Your task to perform on an android device: stop showing notifications on the lock screen Image 0: 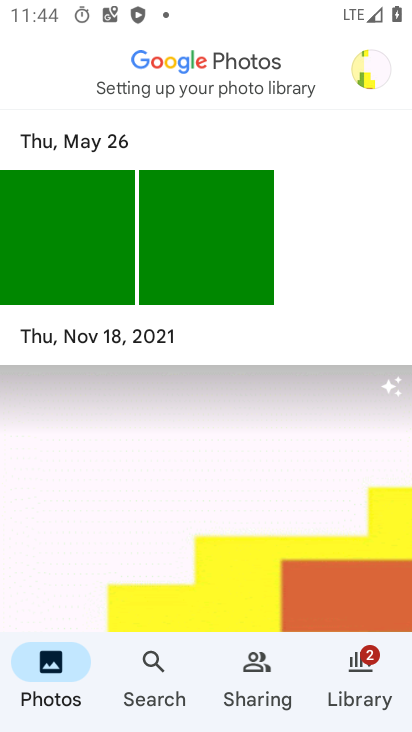
Step 0: press home button
Your task to perform on an android device: stop showing notifications on the lock screen Image 1: 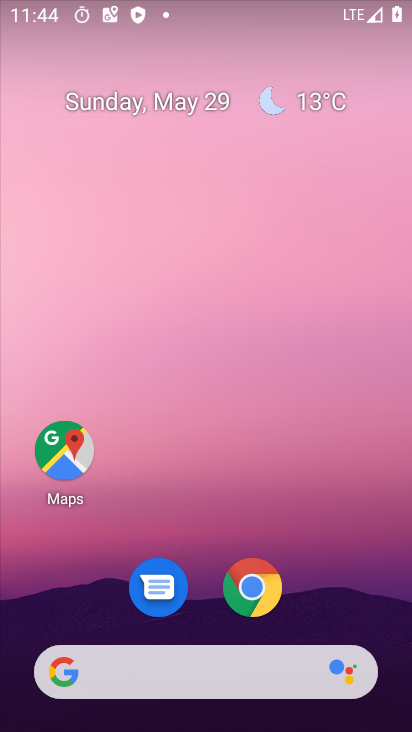
Step 1: drag from (338, 548) to (270, 94)
Your task to perform on an android device: stop showing notifications on the lock screen Image 2: 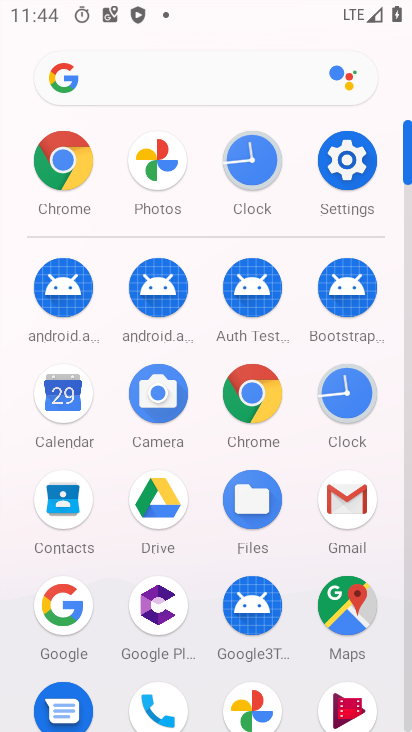
Step 2: click (368, 143)
Your task to perform on an android device: stop showing notifications on the lock screen Image 3: 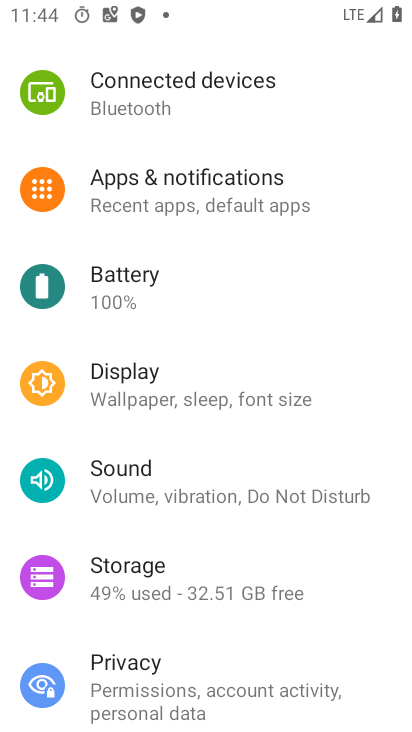
Step 3: click (258, 184)
Your task to perform on an android device: stop showing notifications on the lock screen Image 4: 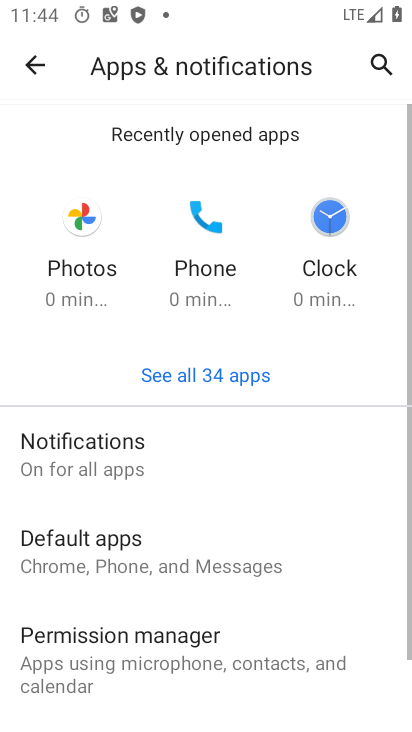
Step 4: click (111, 481)
Your task to perform on an android device: stop showing notifications on the lock screen Image 5: 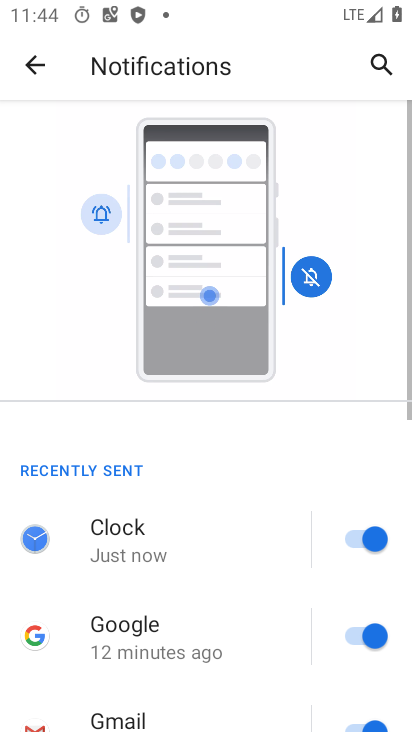
Step 5: drag from (218, 513) to (251, 6)
Your task to perform on an android device: stop showing notifications on the lock screen Image 6: 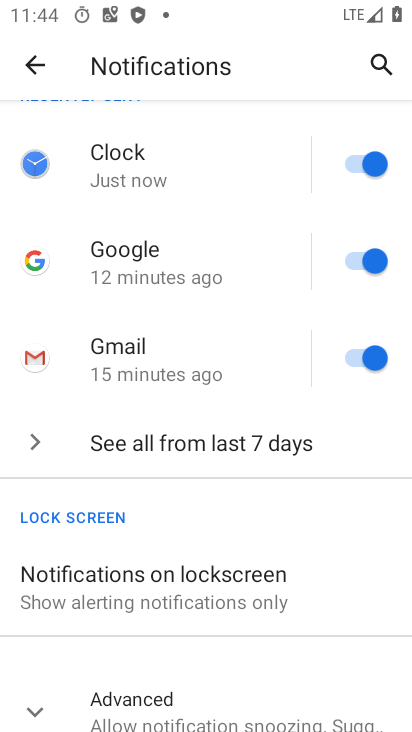
Step 6: click (208, 599)
Your task to perform on an android device: stop showing notifications on the lock screen Image 7: 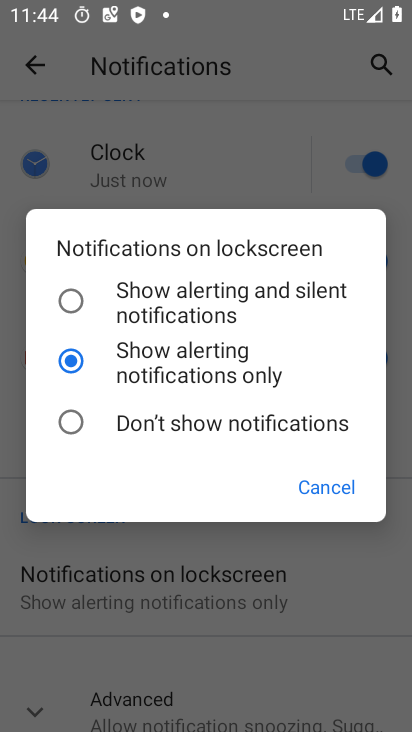
Step 7: click (228, 418)
Your task to perform on an android device: stop showing notifications on the lock screen Image 8: 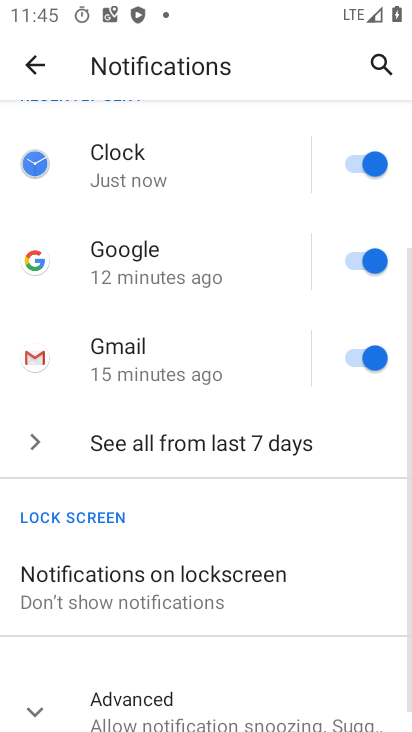
Step 8: task complete